Your task to perform on an android device: install app "Adobe Acrobat Reader" Image 0: 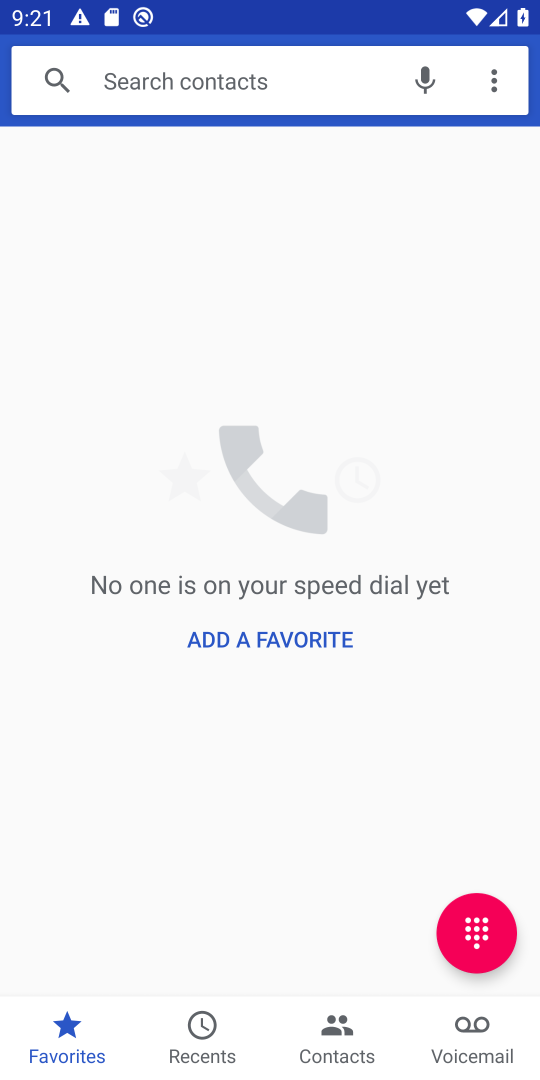
Step 0: press home button
Your task to perform on an android device: install app "Adobe Acrobat Reader" Image 1: 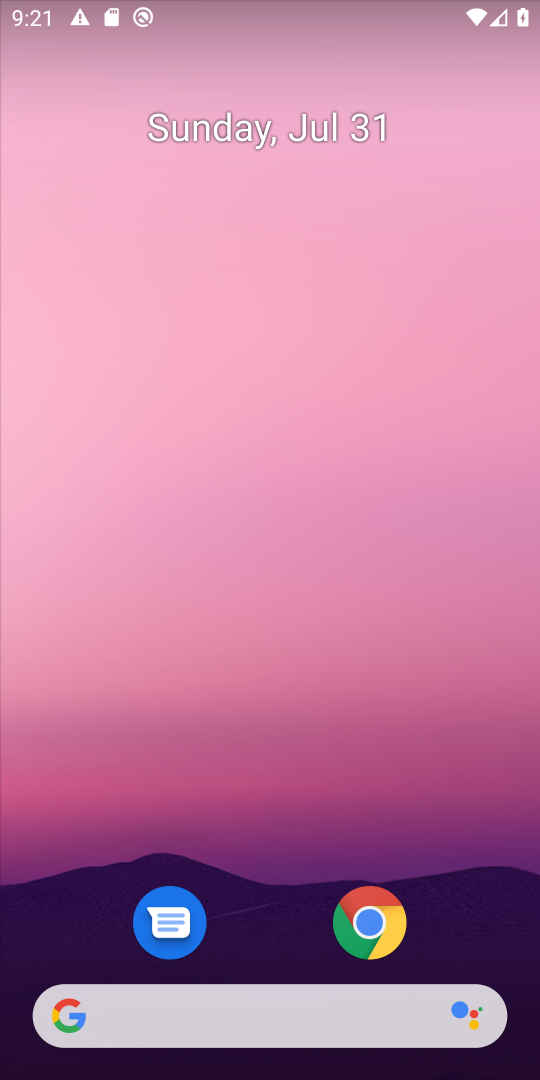
Step 1: drag from (279, 908) to (284, 210)
Your task to perform on an android device: install app "Adobe Acrobat Reader" Image 2: 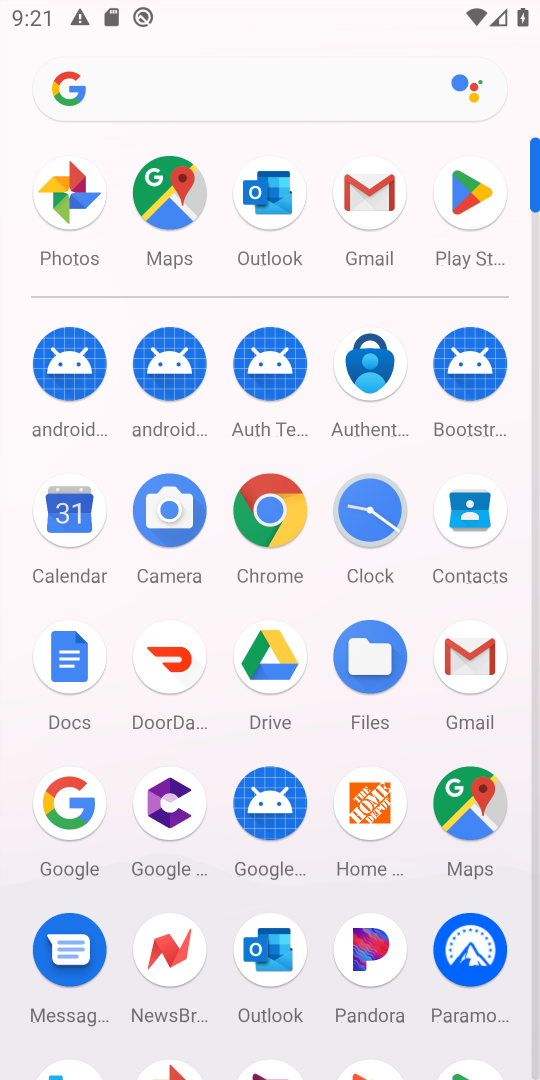
Step 2: click (460, 194)
Your task to perform on an android device: install app "Adobe Acrobat Reader" Image 3: 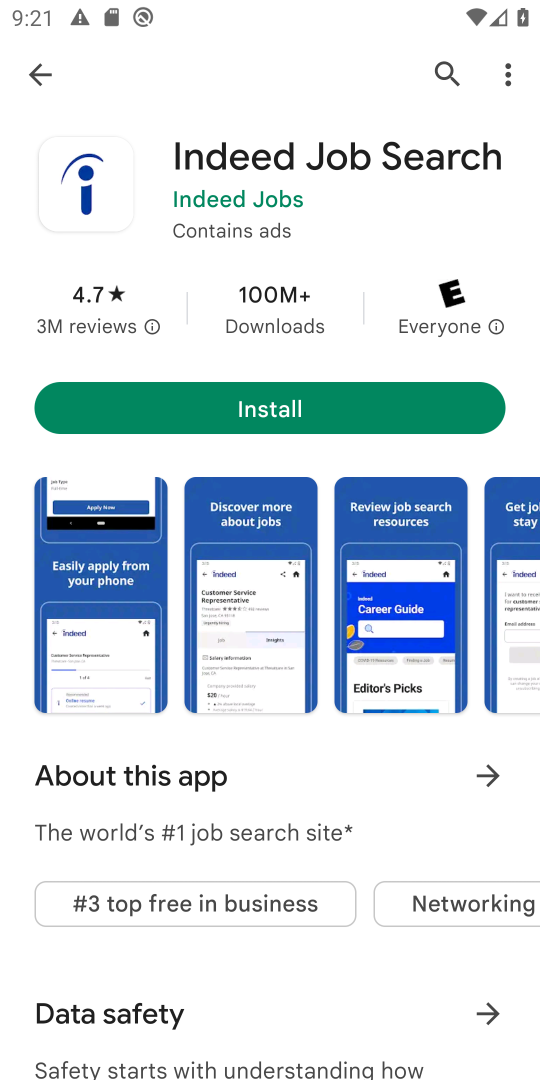
Step 3: click (442, 70)
Your task to perform on an android device: install app "Adobe Acrobat Reader" Image 4: 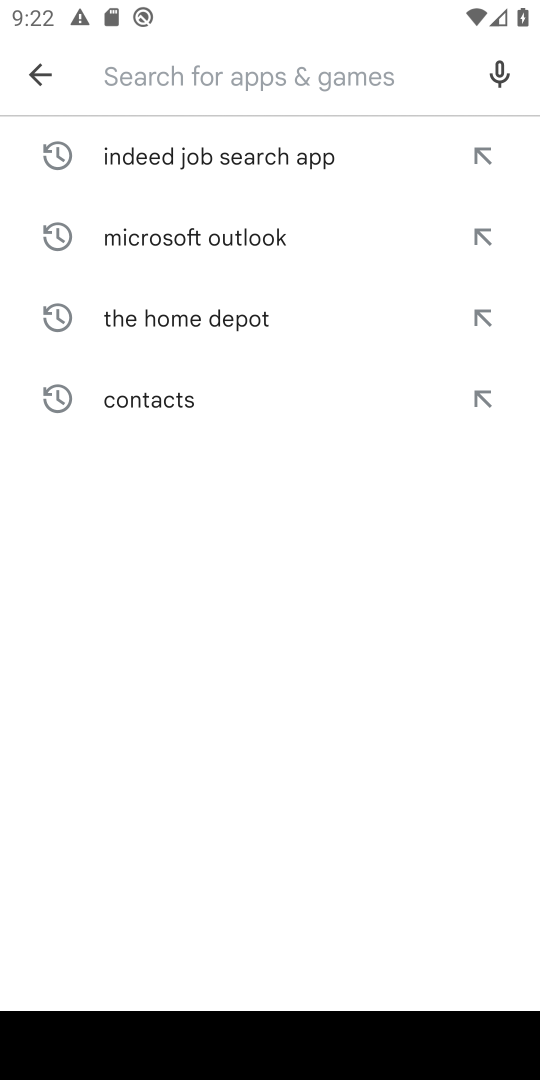
Step 4: type "Adobe Acrobat Reader"
Your task to perform on an android device: install app "Adobe Acrobat Reader" Image 5: 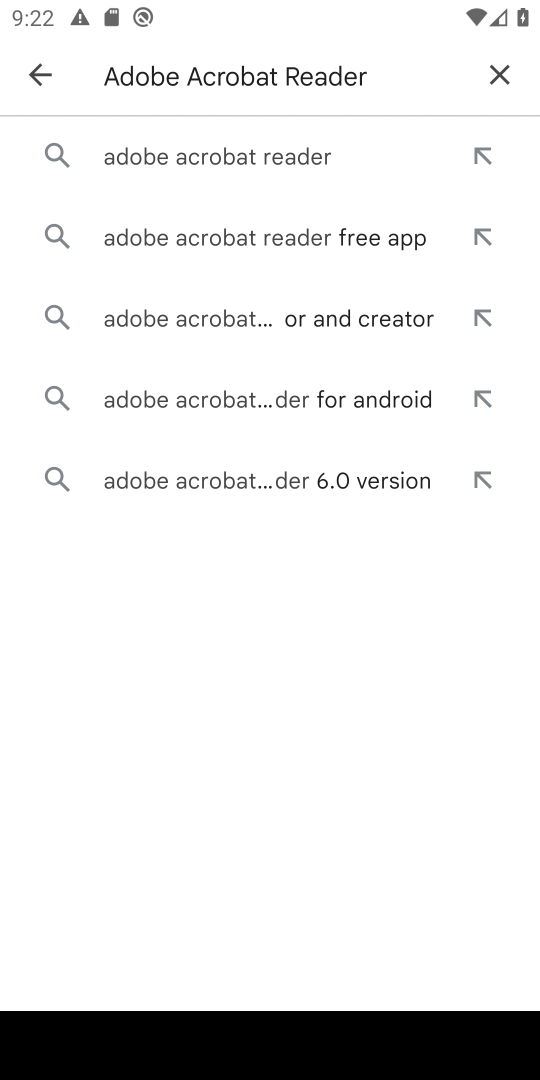
Step 5: click (144, 150)
Your task to perform on an android device: install app "Adobe Acrobat Reader" Image 6: 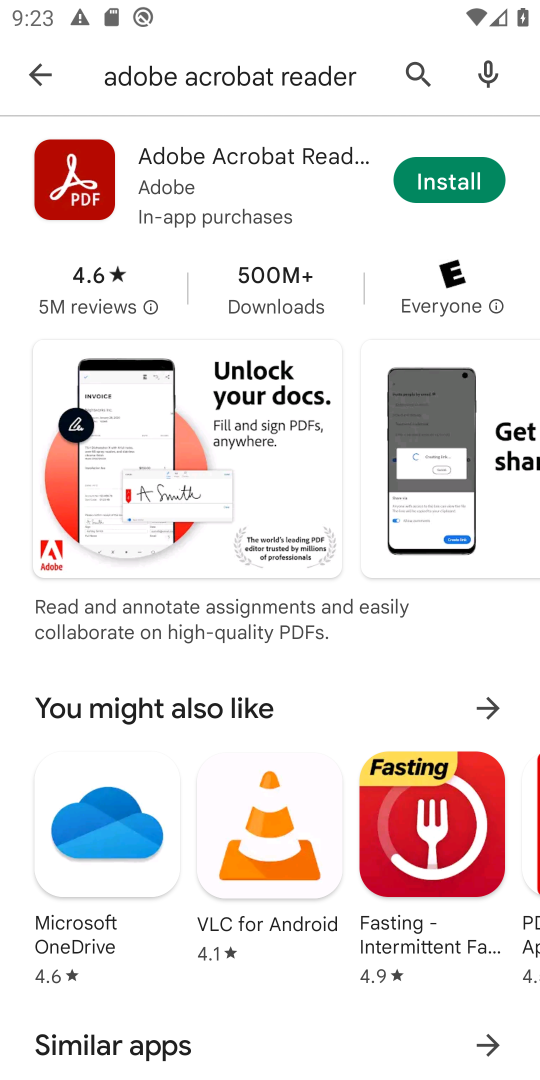
Step 6: click (462, 176)
Your task to perform on an android device: install app "Adobe Acrobat Reader" Image 7: 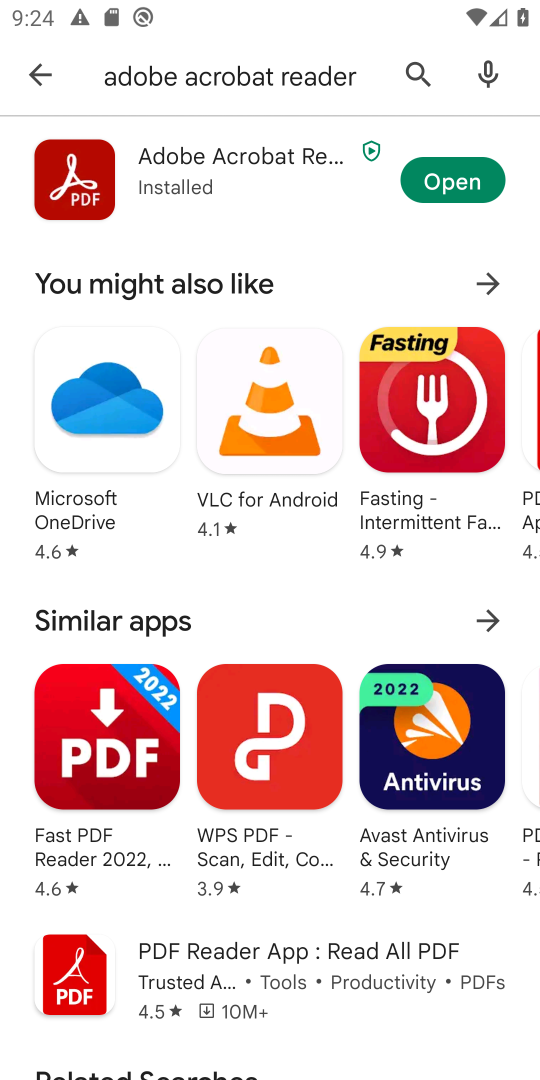
Step 7: task complete